Your task to perform on an android device: Turn on the flashlight Image 0: 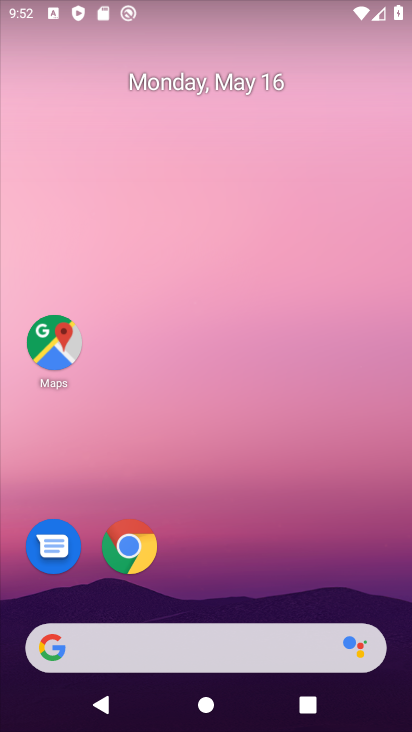
Step 0: drag from (192, 612) to (222, 206)
Your task to perform on an android device: Turn on the flashlight Image 1: 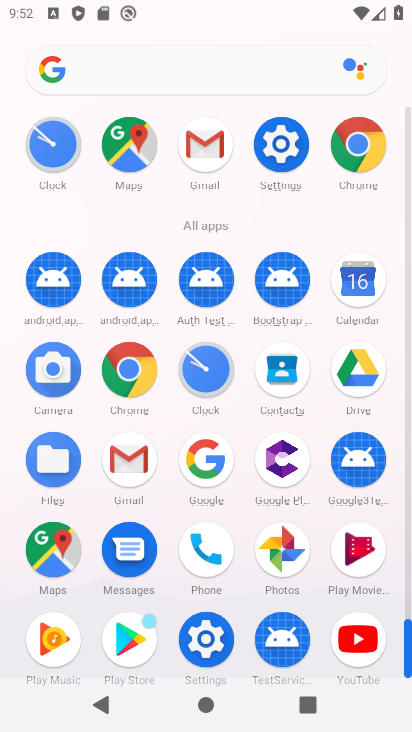
Step 1: click (259, 133)
Your task to perform on an android device: Turn on the flashlight Image 2: 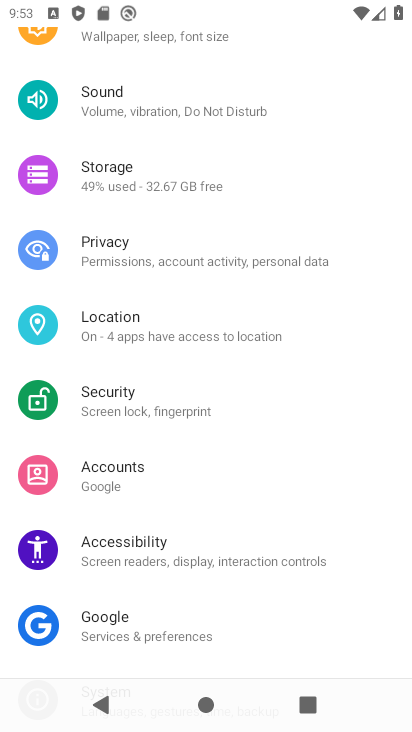
Step 2: task complete